Your task to perform on an android device: What's the weather going to be this weekend? Image 0: 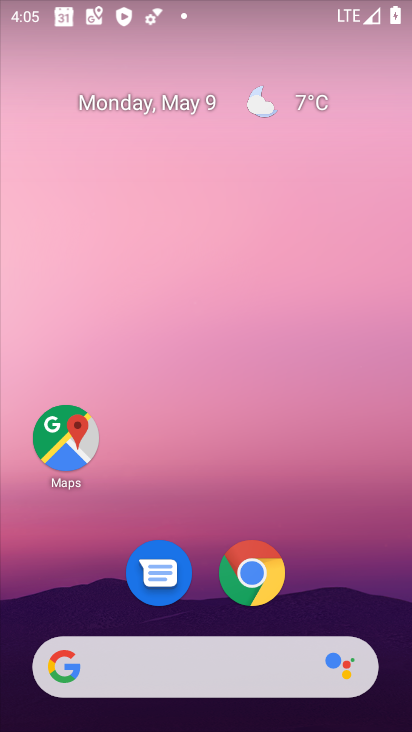
Step 0: click (323, 89)
Your task to perform on an android device: What's the weather going to be this weekend? Image 1: 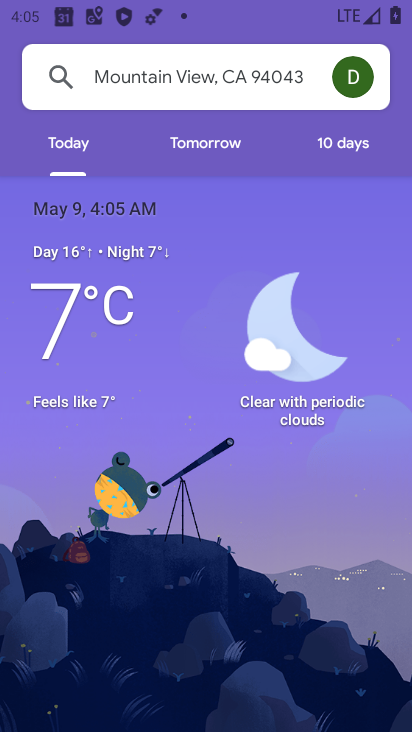
Step 1: click (335, 150)
Your task to perform on an android device: What's the weather going to be this weekend? Image 2: 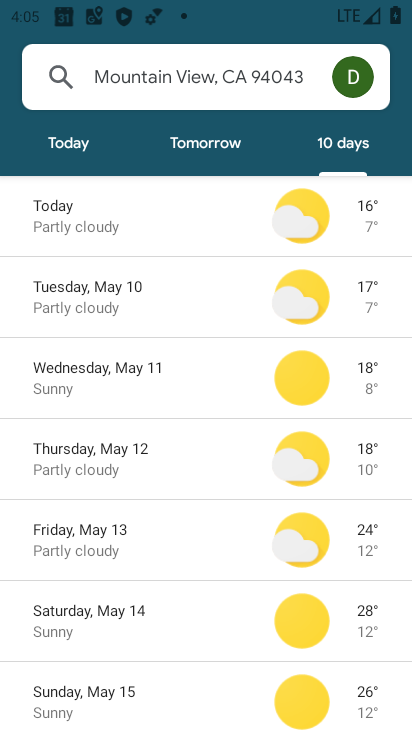
Step 2: task complete